Your task to perform on an android device: turn on airplane mode Image 0: 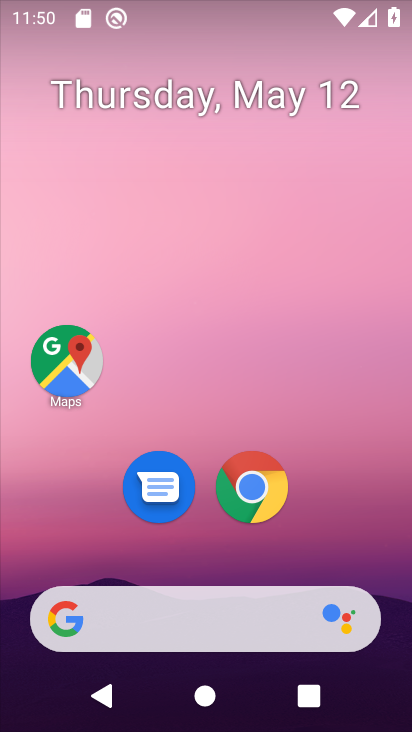
Step 0: drag from (138, 382) to (214, 32)
Your task to perform on an android device: turn on airplane mode Image 1: 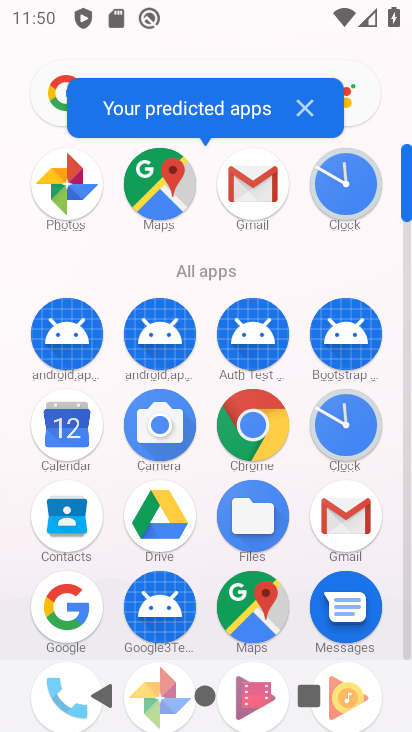
Step 1: drag from (172, 596) to (213, 389)
Your task to perform on an android device: turn on airplane mode Image 2: 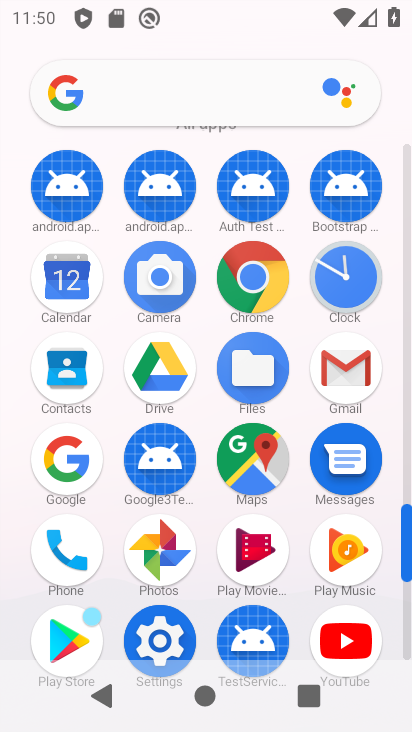
Step 2: click (162, 639)
Your task to perform on an android device: turn on airplane mode Image 3: 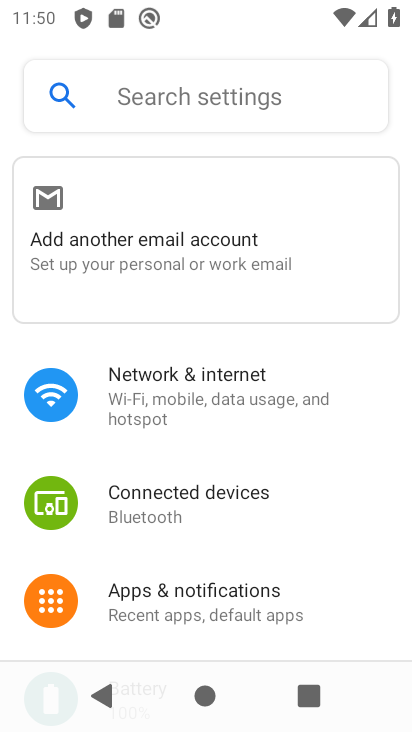
Step 3: drag from (197, 547) to (242, 358)
Your task to perform on an android device: turn on airplane mode Image 4: 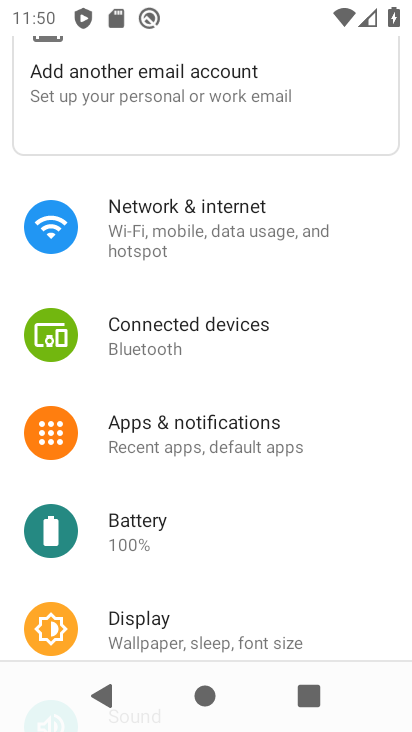
Step 4: click (284, 229)
Your task to perform on an android device: turn on airplane mode Image 5: 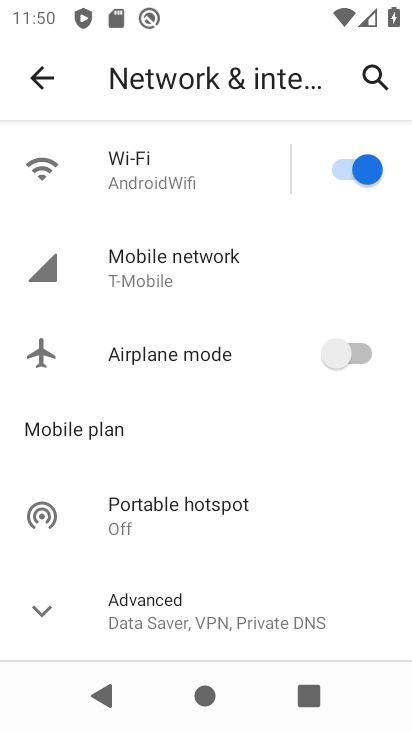
Step 5: click (384, 344)
Your task to perform on an android device: turn on airplane mode Image 6: 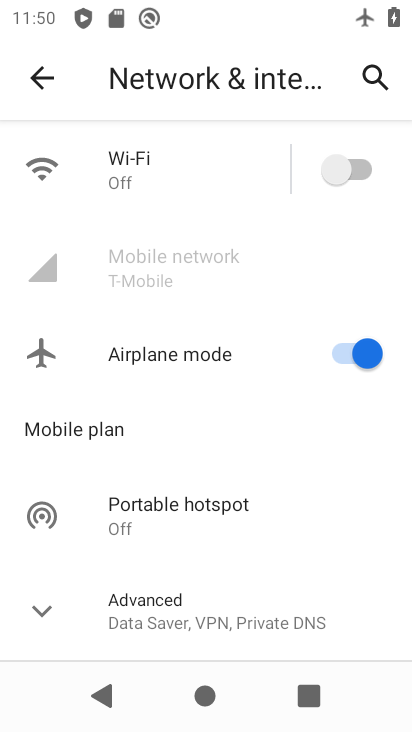
Step 6: task complete